Your task to perform on an android device: empty trash in google photos Image 0: 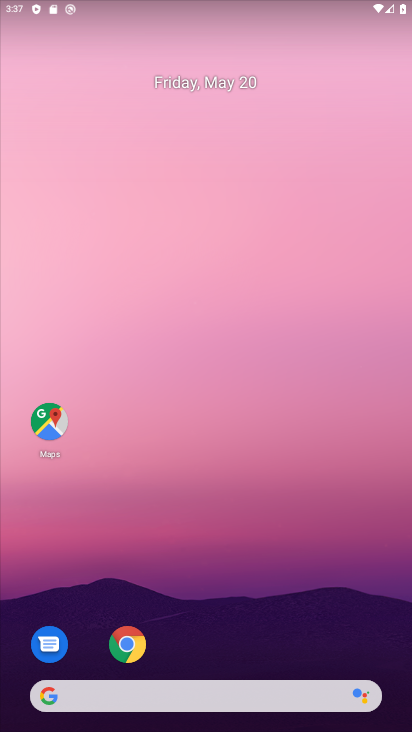
Step 0: drag from (252, 629) to (311, 186)
Your task to perform on an android device: empty trash in google photos Image 1: 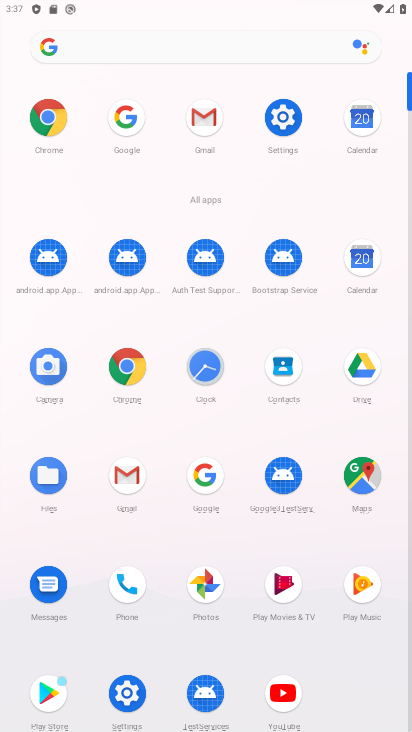
Step 1: click (206, 588)
Your task to perform on an android device: empty trash in google photos Image 2: 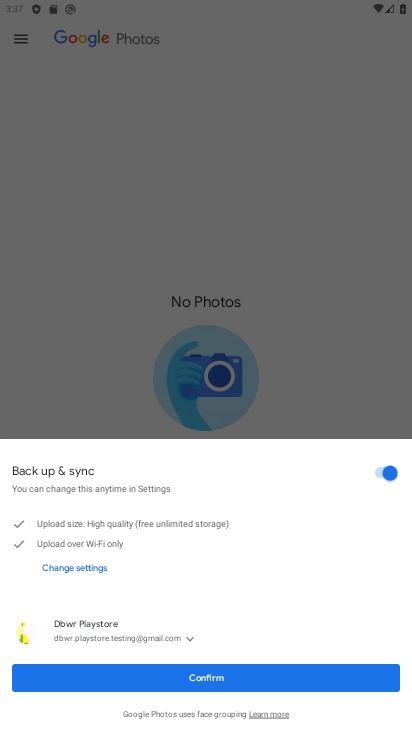
Step 2: click (218, 676)
Your task to perform on an android device: empty trash in google photos Image 3: 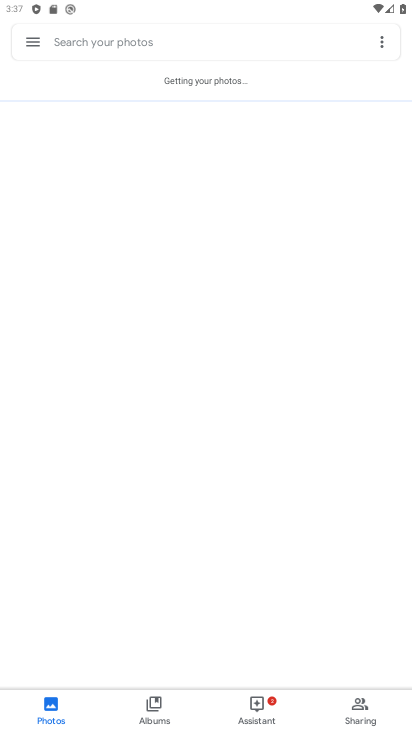
Step 3: click (41, 47)
Your task to perform on an android device: empty trash in google photos Image 4: 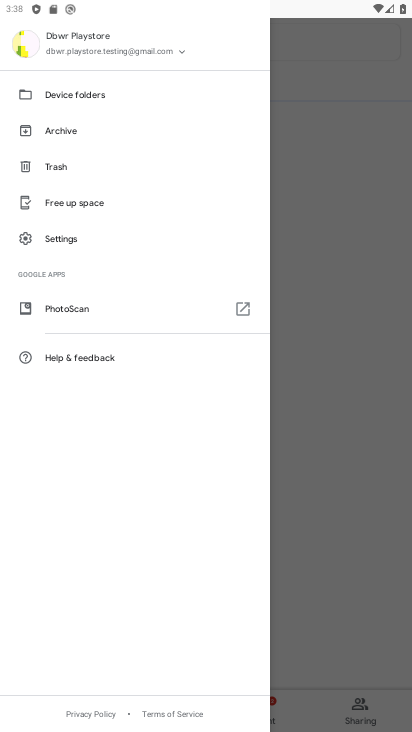
Step 4: click (57, 169)
Your task to perform on an android device: empty trash in google photos Image 5: 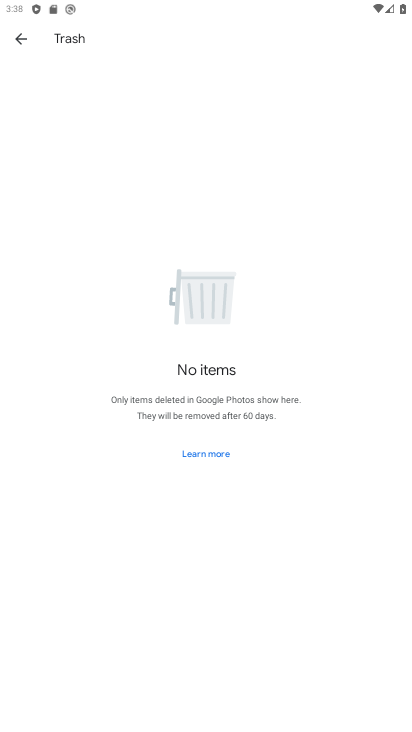
Step 5: task complete